Your task to perform on an android device: change text size in settings app Image 0: 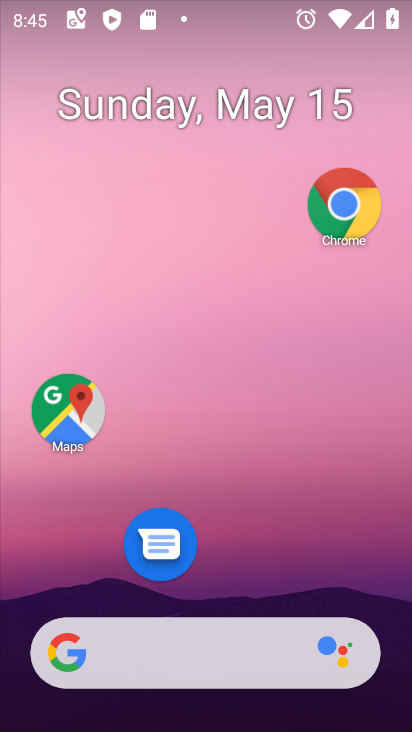
Step 0: drag from (284, 512) to (250, 72)
Your task to perform on an android device: change text size in settings app Image 1: 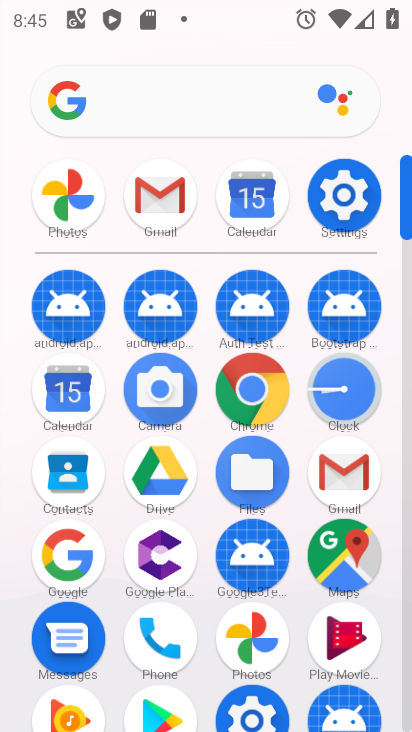
Step 1: click (329, 200)
Your task to perform on an android device: change text size in settings app Image 2: 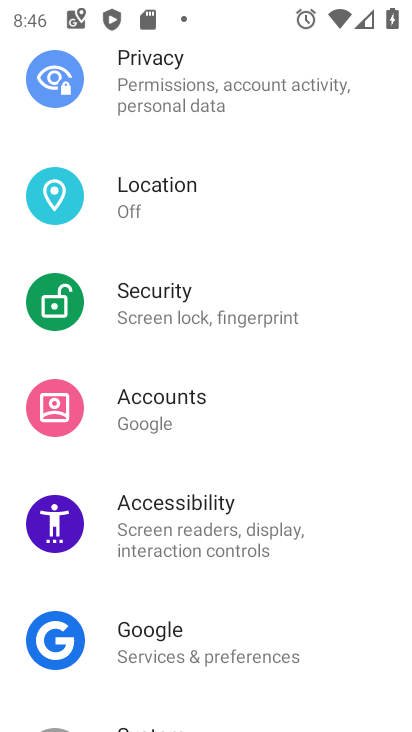
Step 2: drag from (220, 210) to (262, 400)
Your task to perform on an android device: change text size in settings app Image 3: 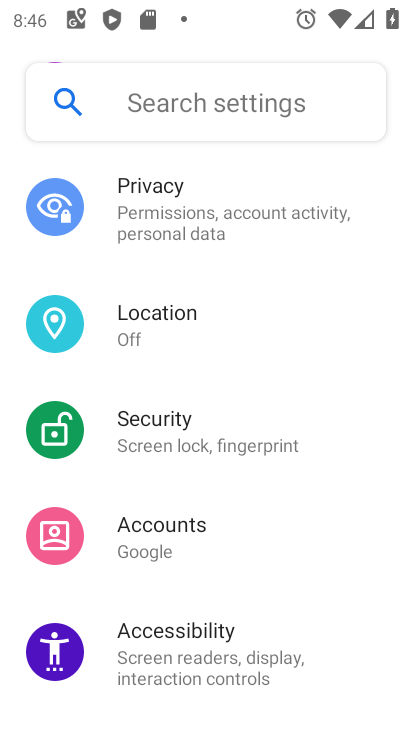
Step 3: drag from (234, 273) to (263, 476)
Your task to perform on an android device: change text size in settings app Image 4: 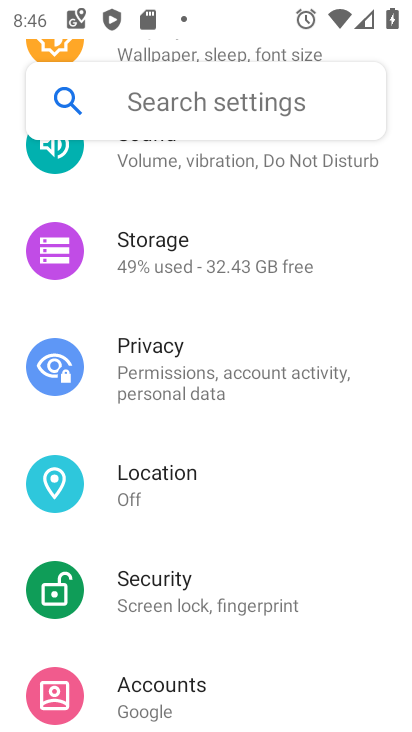
Step 4: drag from (250, 305) to (266, 428)
Your task to perform on an android device: change text size in settings app Image 5: 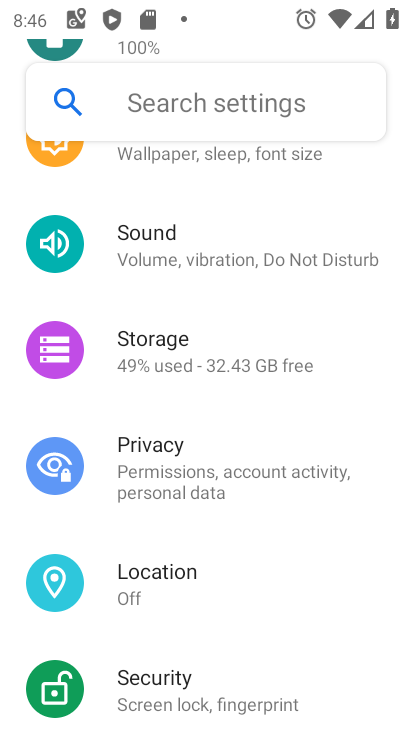
Step 5: drag from (281, 257) to (274, 375)
Your task to perform on an android device: change text size in settings app Image 6: 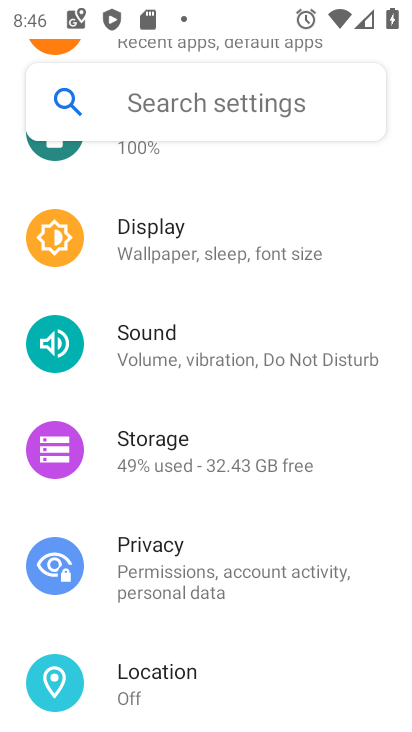
Step 6: click (219, 258)
Your task to perform on an android device: change text size in settings app Image 7: 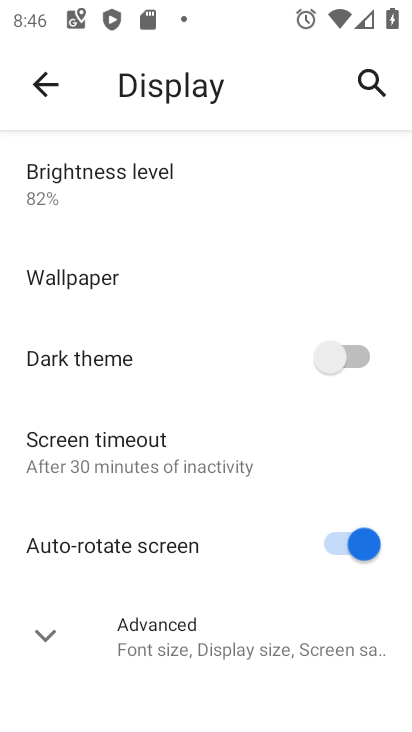
Step 7: click (183, 635)
Your task to perform on an android device: change text size in settings app Image 8: 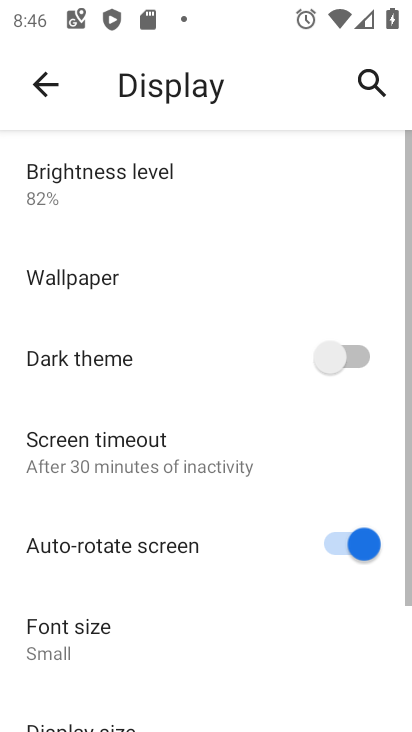
Step 8: drag from (183, 631) to (206, 292)
Your task to perform on an android device: change text size in settings app Image 9: 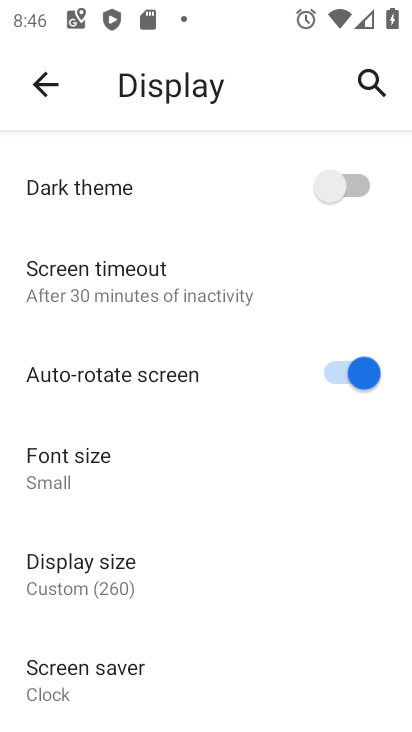
Step 9: click (106, 480)
Your task to perform on an android device: change text size in settings app Image 10: 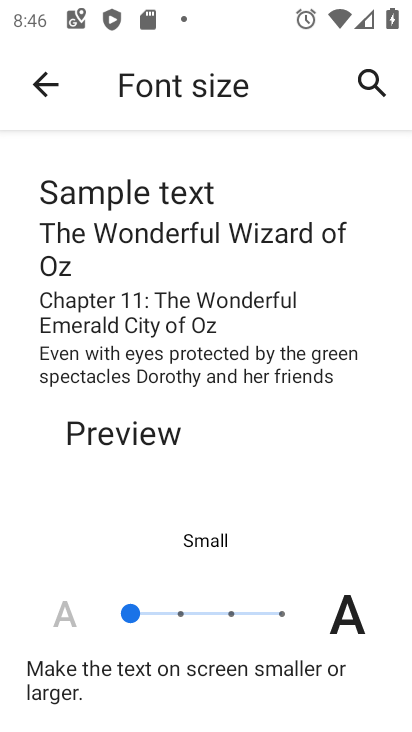
Step 10: click (229, 614)
Your task to perform on an android device: change text size in settings app Image 11: 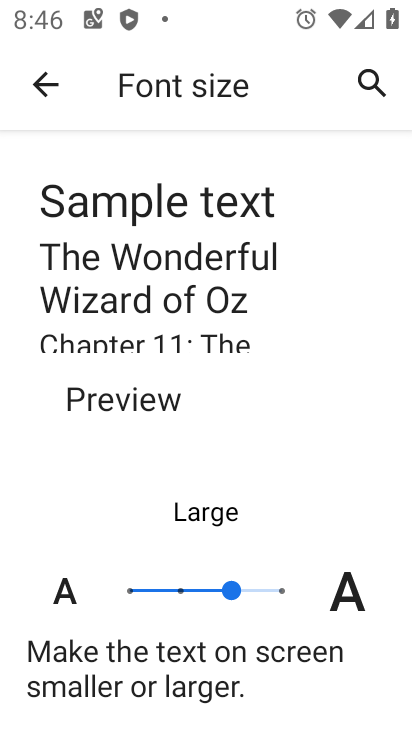
Step 11: task complete